Your task to perform on an android device: turn notification dots on Image 0: 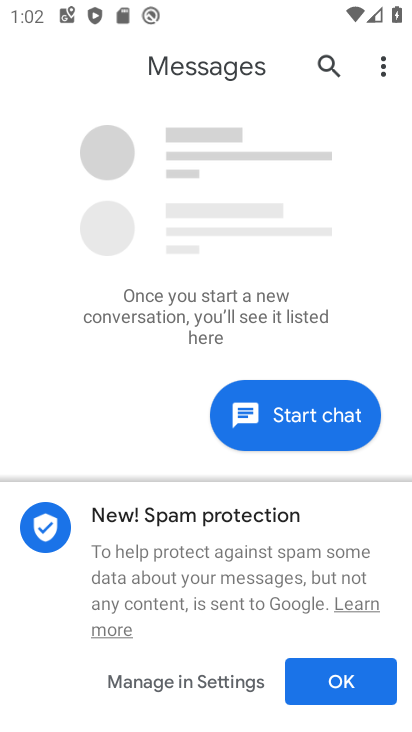
Step 0: press home button
Your task to perform on an android device: turn notification dots on Image 1: 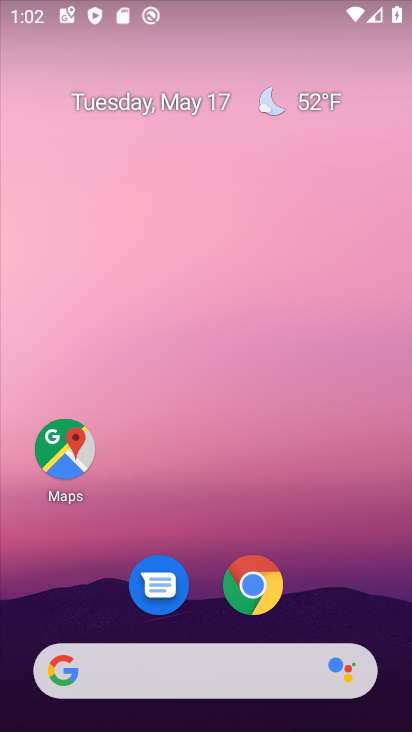
Step 1: drag from (299, 486) to (317, 74)
Your task to perform on an android device: turn notification dots on Image 2: 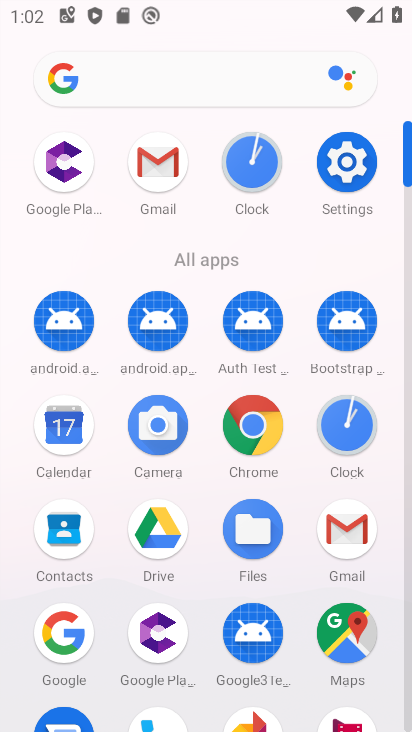
Step 2: click (340, 176)
Your task to perform on an android device: turn notification dots on Image 3: 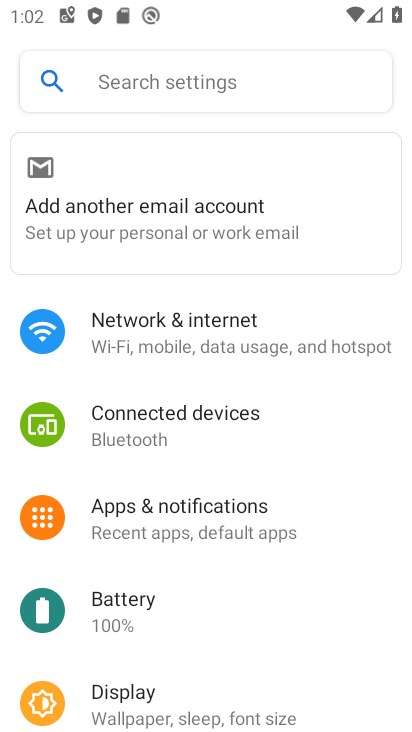
Step 3: click (235, 513)
Your task to perform on an android device: turn notification dots on Image 4: 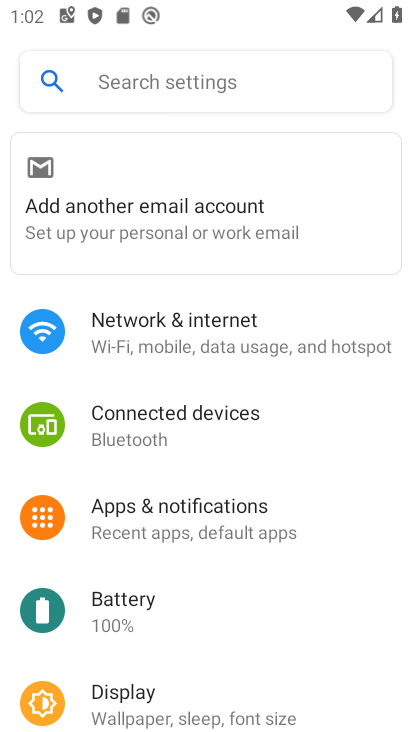
Step 4: click (234, 515)
Your task to perform on an android device: turn notification dots on Image 5: 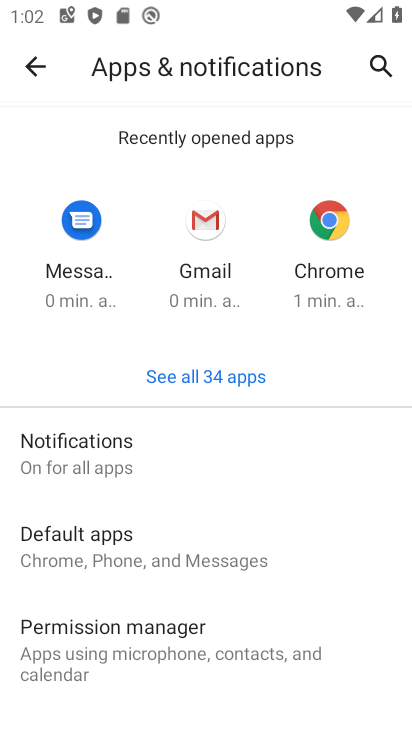
Step 5: click (206, 460)
Your task to perform on an android device: turn notification dots on Image 6: 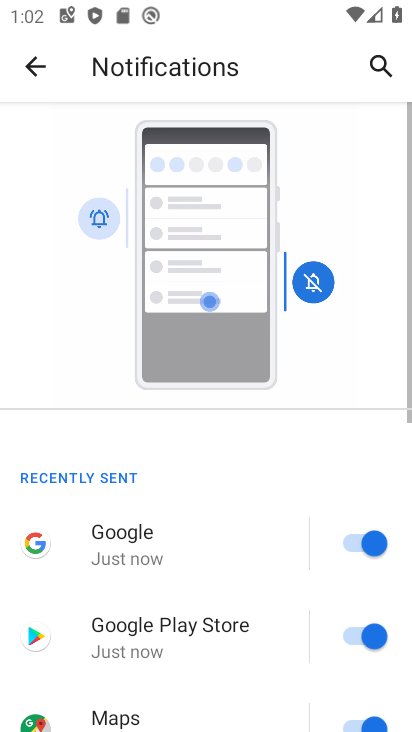
Step 6: drag from (223, 618) to (280, 248)
Your task to perform on an android device: turn notification dots on Image 7: 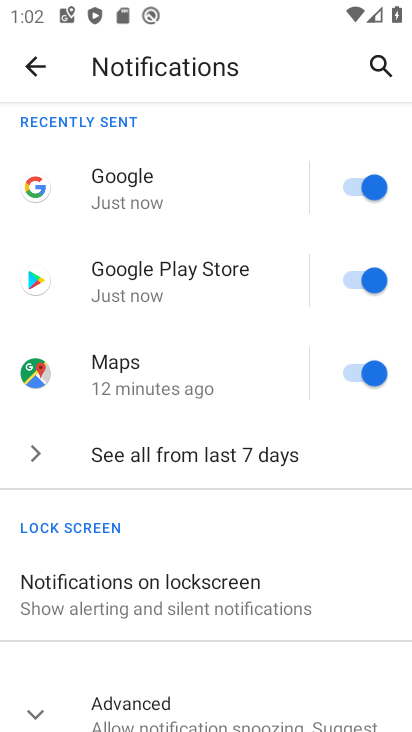
Step 7: click (35, 708)
Your task to perform on an android device: turn notification dots on Image 8: 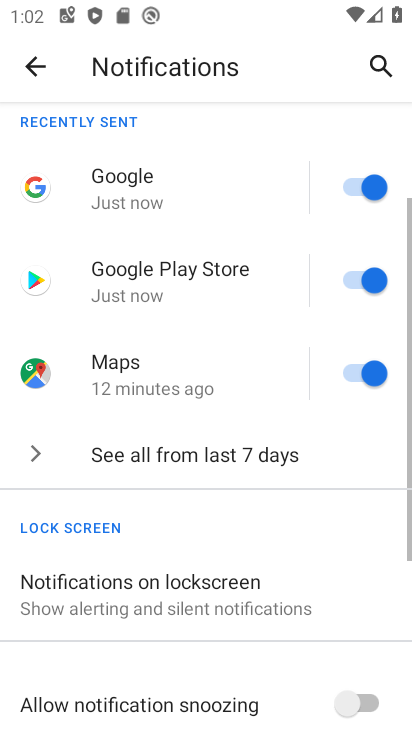
Step 8: drag from (242, 629) to (282, 174)
Your task to perform on an android device: turn notification dots on Image 9: 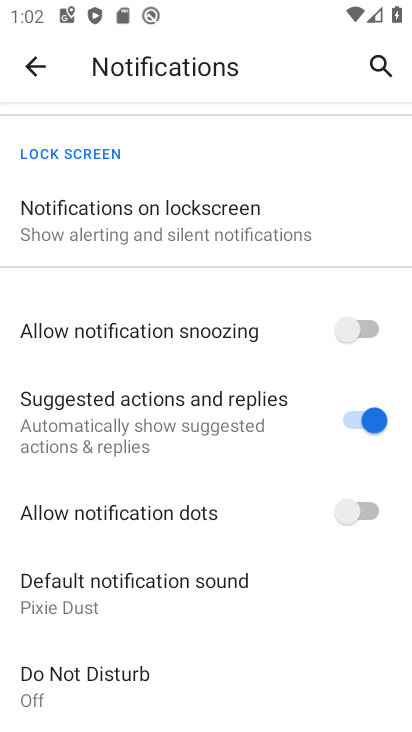
Step 9: click (354, 498)
Your task to perform on an android device: turn notification dots on Image 10: 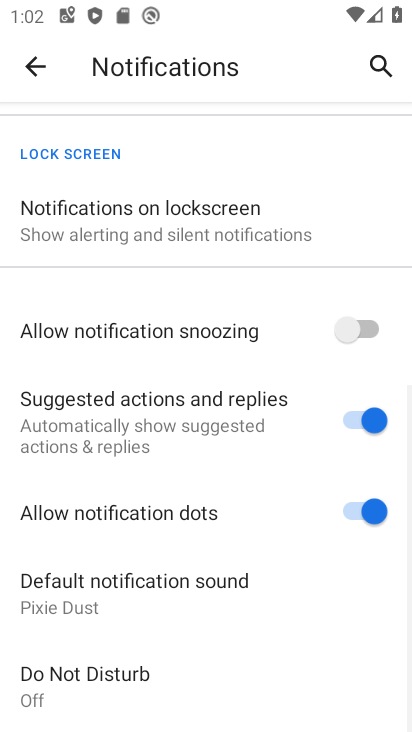
Step 10: task complete